Your task to perform on an android device: all mails in gmail Image 0: 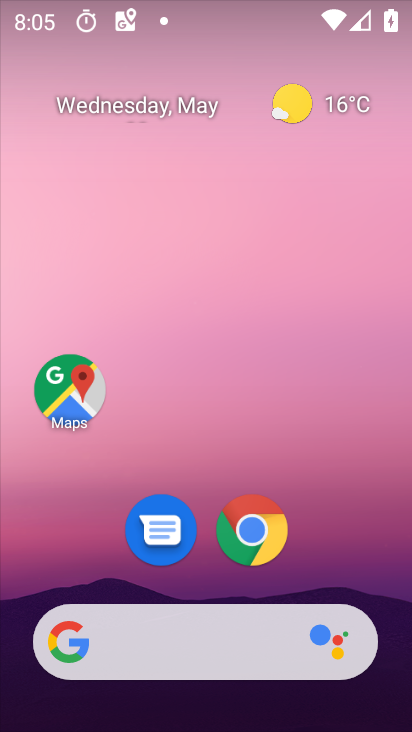
Step 0: drag from (204, 378) to (240, 154)
Your task to perform on an android device: all mails in gmail Image 1: 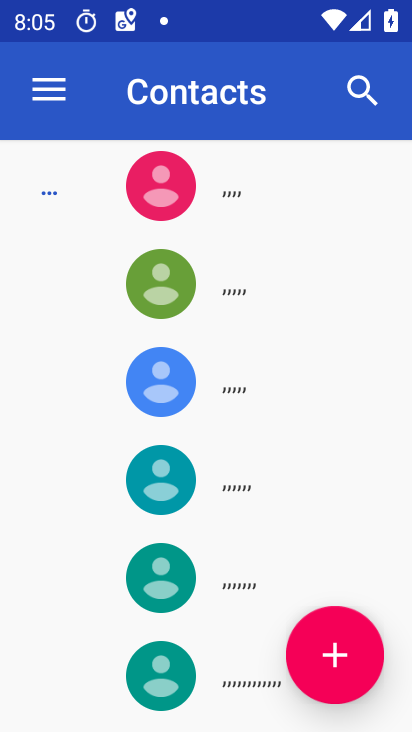
Step 1: press home button
Your task to perform on an android device: all mails in gmail Image 2: 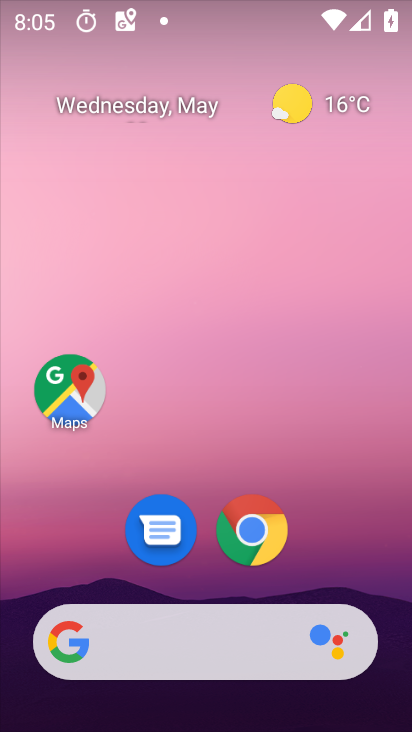
Step 2: drag from (201, 593) to (203, 261)
Your task to perform on an android device: all mails in gmail Image 3: 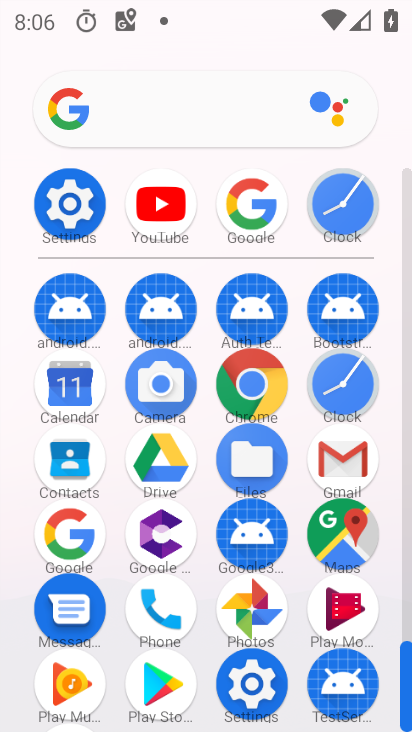
Step 3: click (345, 465)
Your task to perform on an android device: all mails in gmail Image 4: 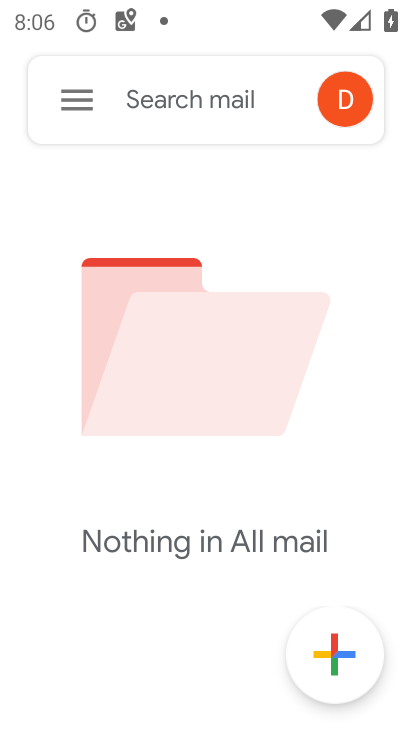
Step 4: click (82, 93)
Your task to perform on an android device: all mails in gmail Image 5: 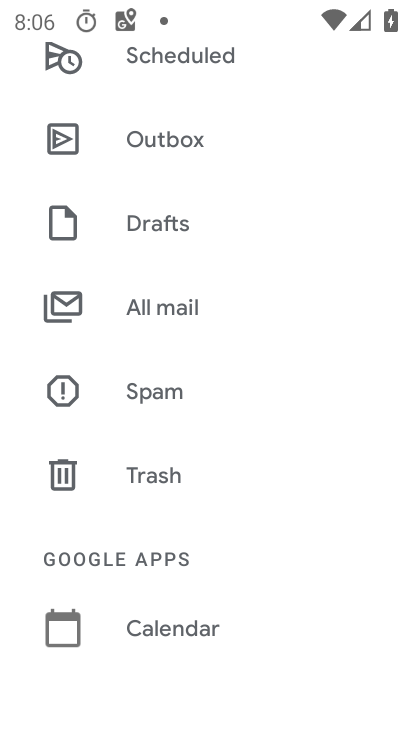
Step 5: click (175, 311)
Your task to perform on an android device: all mails in gmail Image 6: 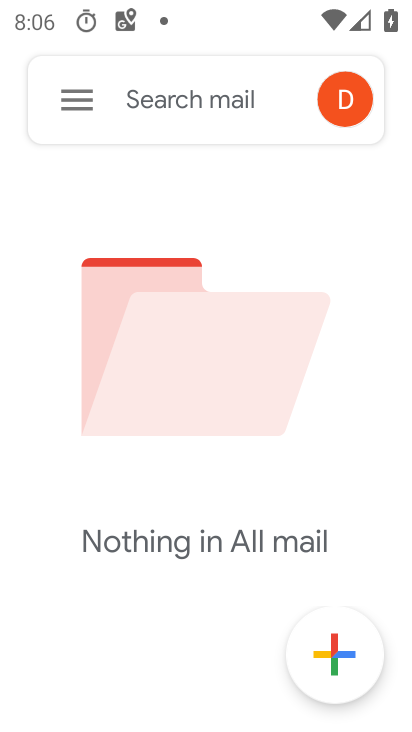
Step 6: task complete